Your task to perform on an android device: turn on bluetooth scan Image 0: 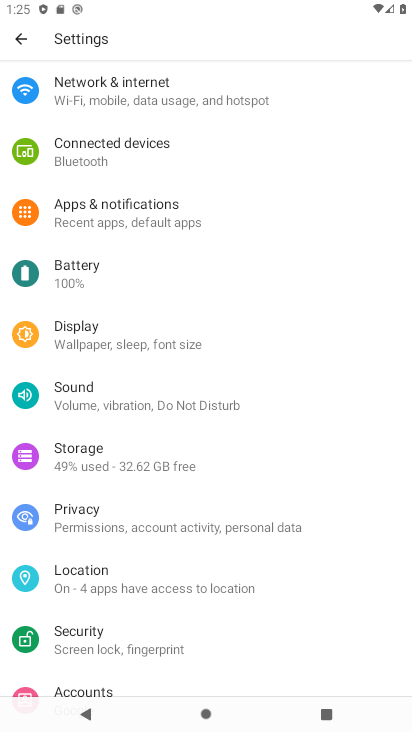
Step 0: click (175, 156)
Your task to perform on an android device: turn on bluetooth scan Image 1: 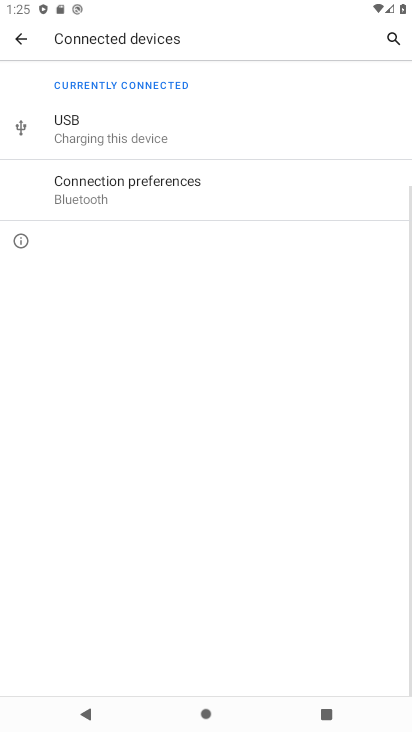
Step 1: click (193, 184)
Your task to perform on an android device: turn on bluetooth scan Image 2: 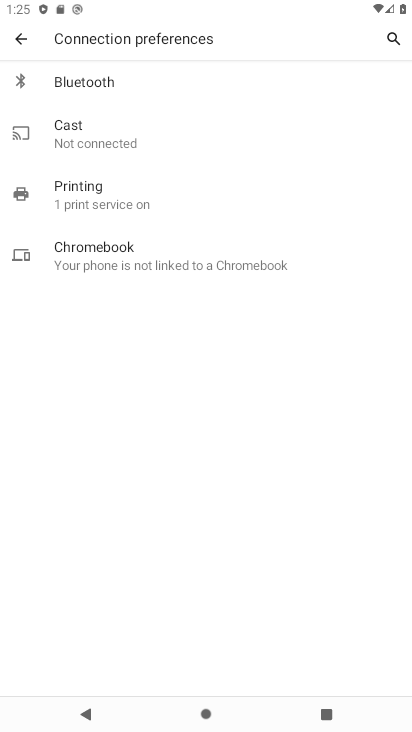
Step 2: click (162, 86)
Your task to perform on an android device: turn on bluetooth scan Image 3: 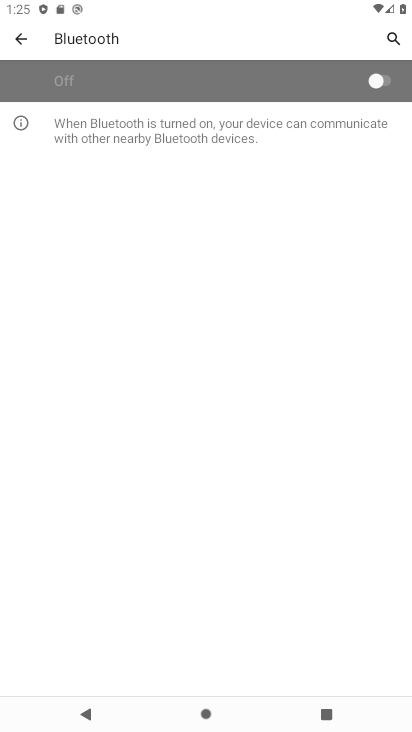
Step 3: click (394, 76)
Your task to perform on an android device: turn on bluetooth scan Image 4: 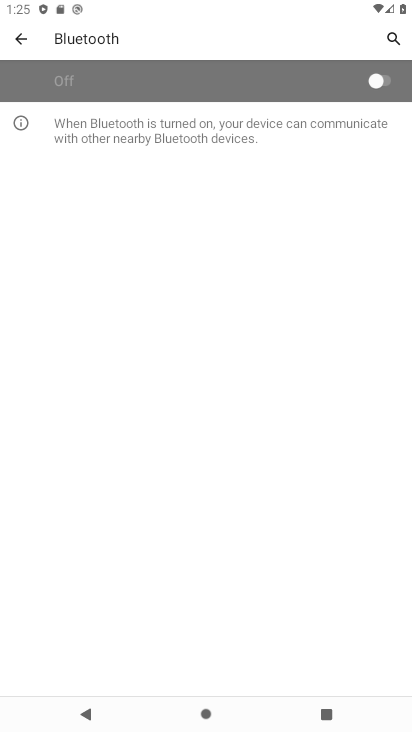
Step 4: click (394, 76)
Your task to perform on an android device: turn on bluetooth scan Image 5: 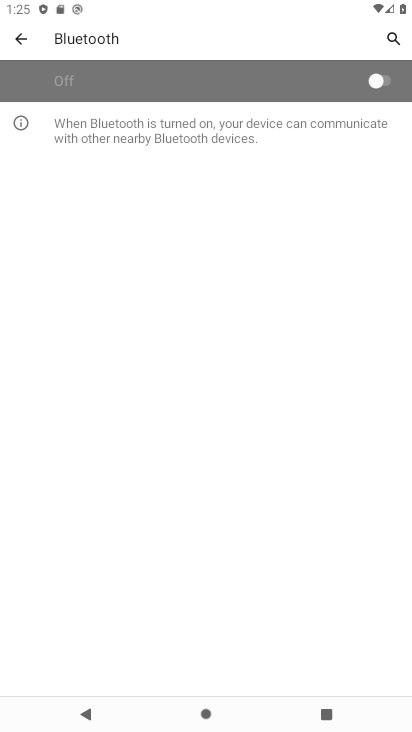
Step 5: task complete